Your task to perform on an android device: delete the emails in spam in the gmail app Image 0: 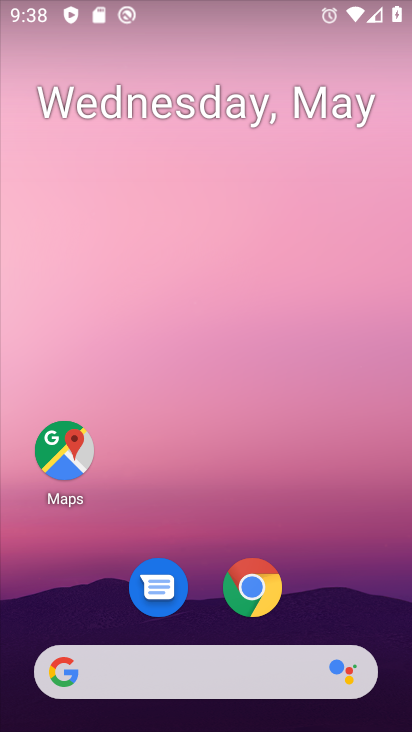
Step 0: drag from (101, 629) to (221, 154)
Your task to perform on an android device: delete the emails in spam in the gmail app Image 1: 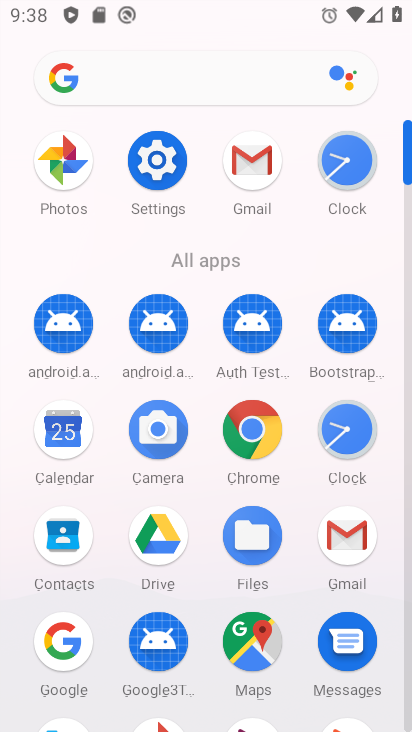
Step 1: click (337, 548)
Your task to perform on an android device: delete the emails in spam in the gmail app Image 2: 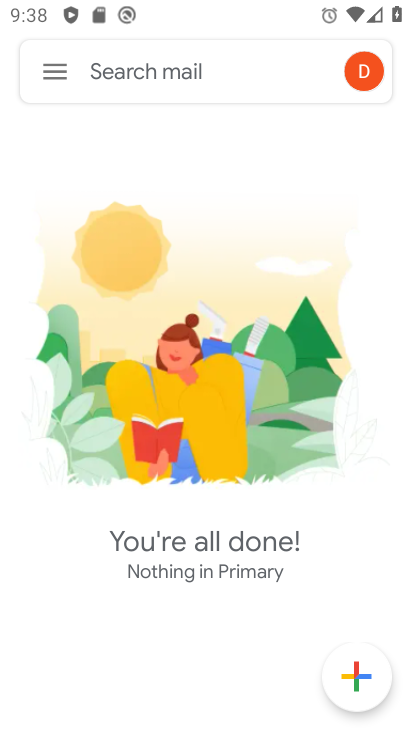
Step 2: click (74, 77)
Your task to perform on an android device: delete the emails in spam in the gmail app Image 3: 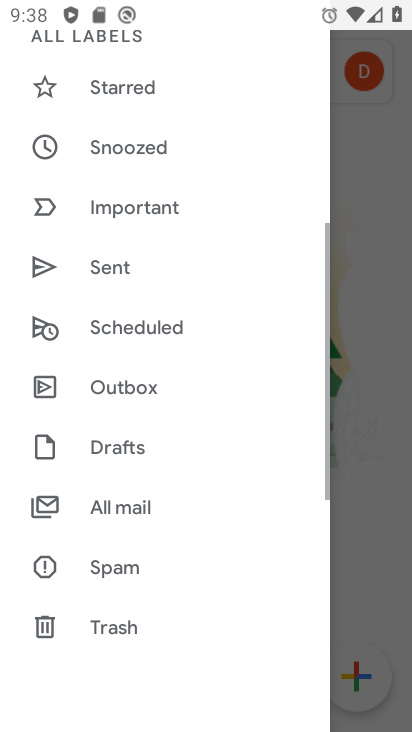
Step 3: click (133, 574)
Your task to perform on an android device: delete the emails in spam in the gmail app Image 4: 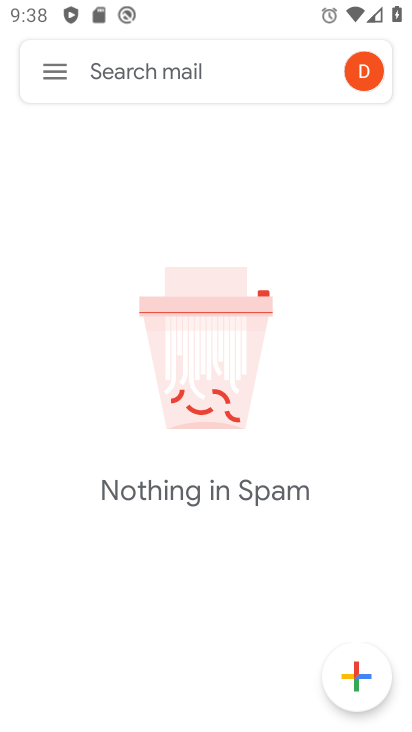
Step 4: task complete